Your task to perform on an android device: Open the calendar app, open the side menu, and click the "Day" option Image 0: 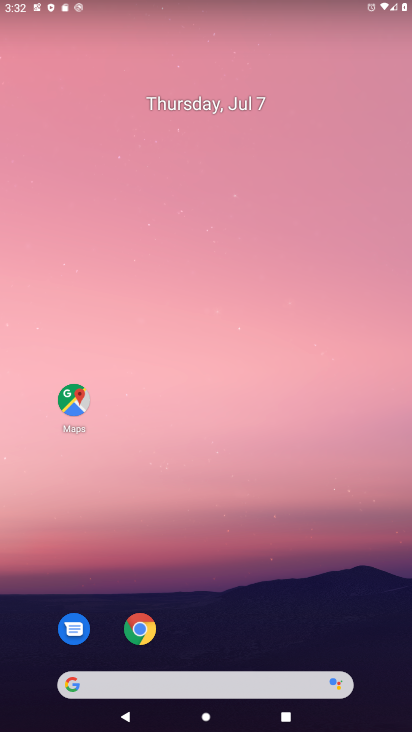
Step 0: click (193, 102)
Your task to perform on an android device: Open the calendar app, open the side menu, and click the "Day" option Image 1: 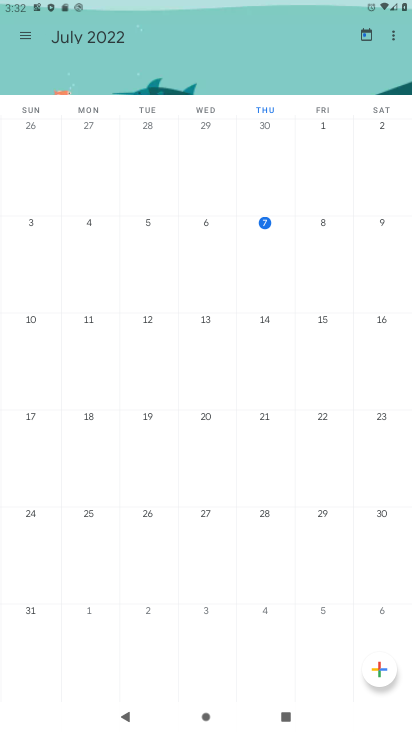
Step 1: click (25, 46)
Your task to perform on an android device: Open the calendar app, open the side menu, and click the "Day" option Image 2: 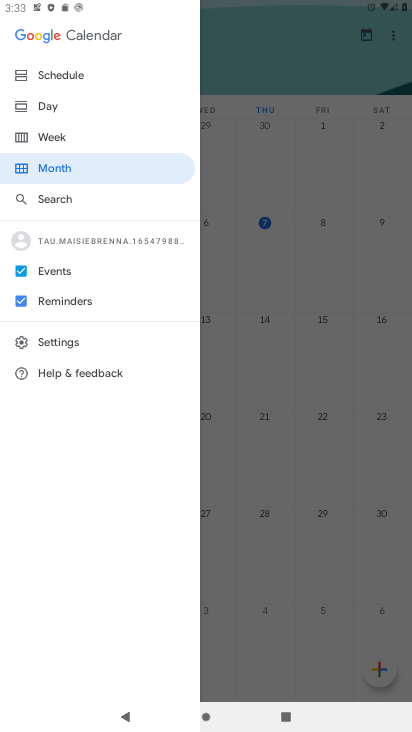
Step 2: click (85, 101)
Your task to perform on an android device: Open the calendar app, open the side menu, and click the "Day" option Image 3: 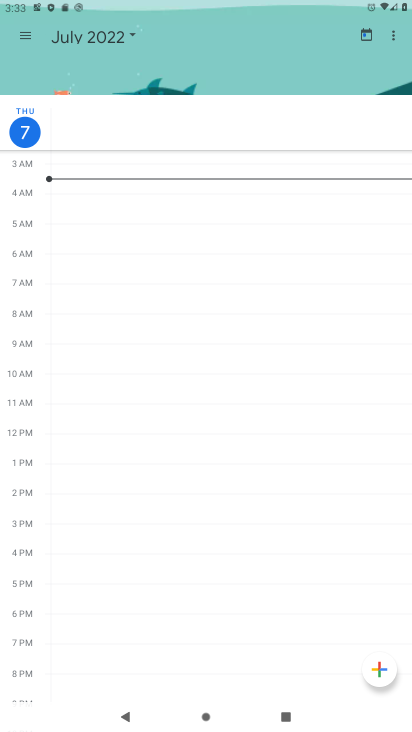
Step 3: task complete